Your task to perform on an android device: Do I have any events this weekend? Image 0: 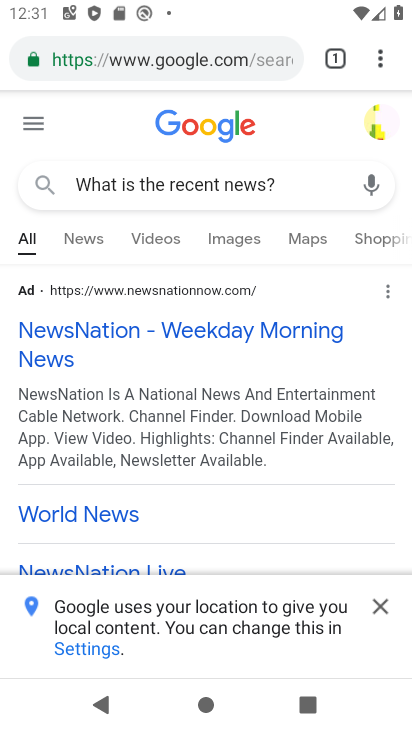
Step 0: task complete